Your task to perform on an android device: clear history in the chrome app Image 0: 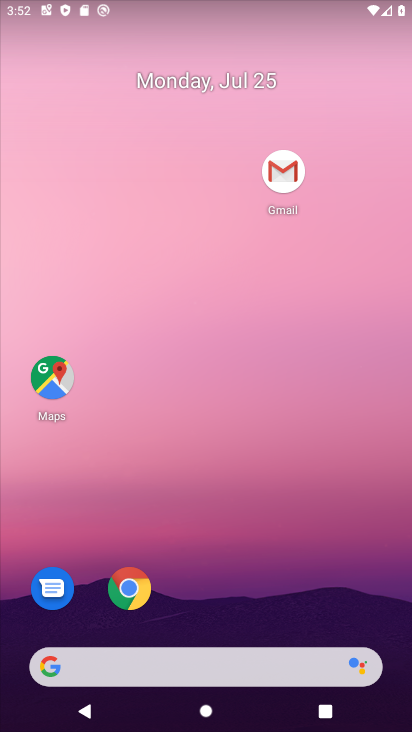
Step 0: drag from (328, 561) to (353, 81)
Your task to perform on an android device: clear history in the chrome app Image 1: 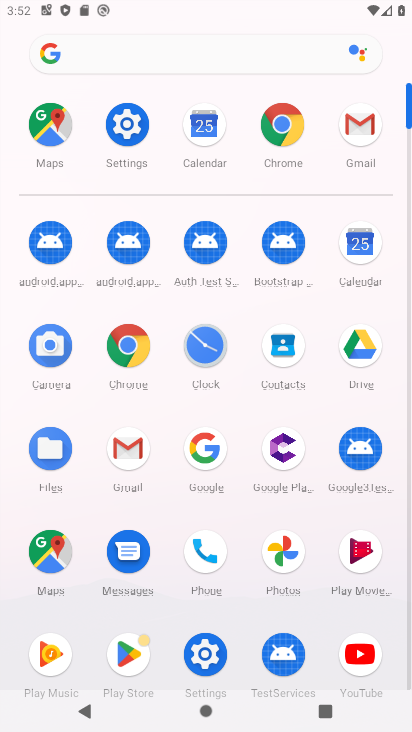
Step 1: click (127, 343)
Your task to perform on an android device: clear history in the chrome app Image 2: 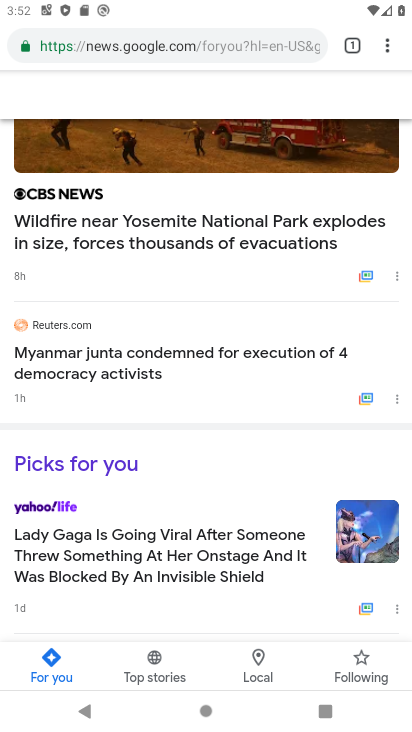
Step 2: drag from (395, 42) to (238, 266)
Your task to perform on an android device: clear history in the chrome app Image 3: 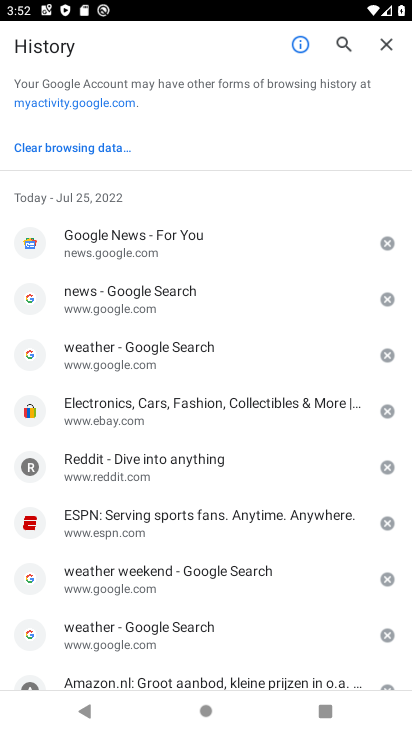
Step 3: click (97, 146)
Your task to perform on an android device: clear history in the chrome app Image 4: 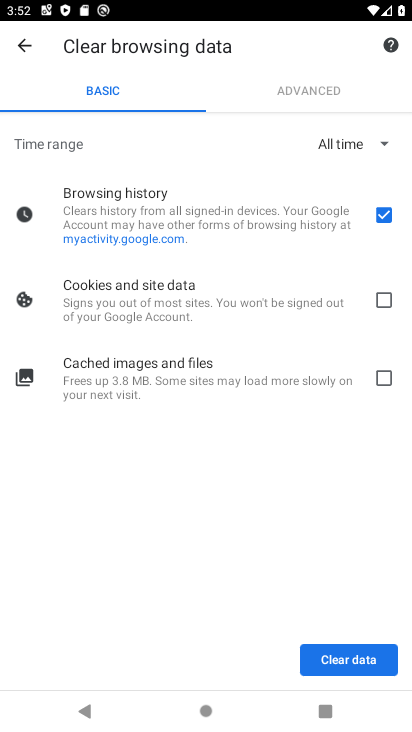
Step 4: click (357, 653)
Your task to perform on an android device: clear history in the chrome app Image 5: 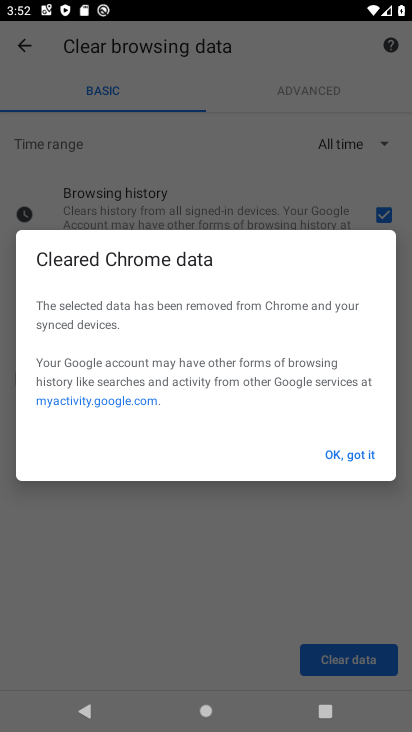
Step 5: click (362, 449)
Your task to perform on an android device: clear history in the chrome app Image 6: 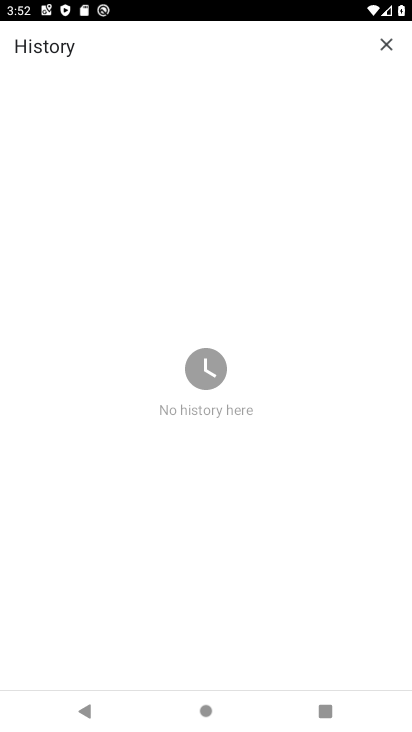
Step 6: task complete